Your task to perform on an android device: toggle show notifications on the lock screen Image 0: 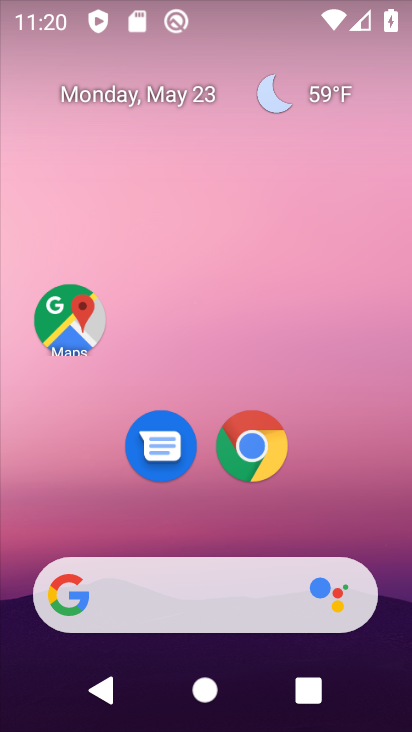
Step 0: drag from (204, 551) to (246, 216)
Your task to perform on an android device: toggle show notifications on the lock screen Image 1: 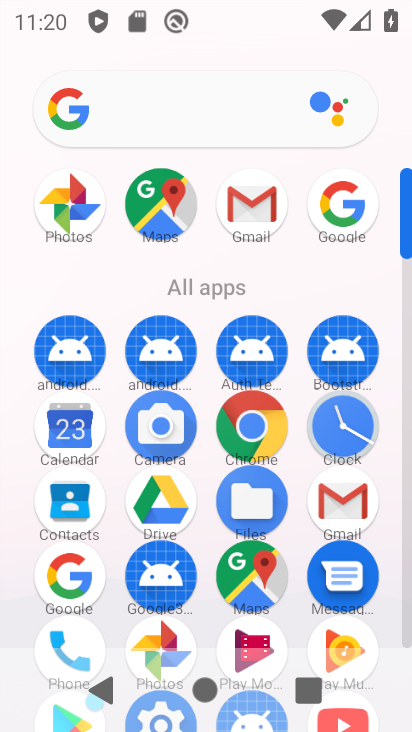
Step 1: drag from (118, 497) to (116, 157)
Your task to perform on an android device: toggle show notifications on the lock screen Image 2: 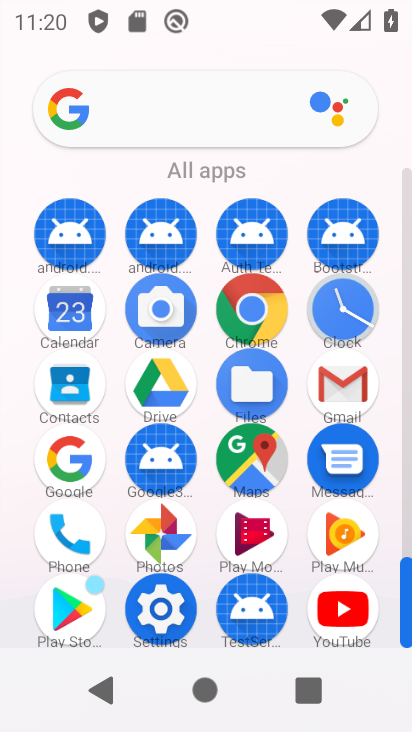
Step 2: click (169, 609)
Your task to perform on an android device: toggle show notifications on the lock screen Image 3: 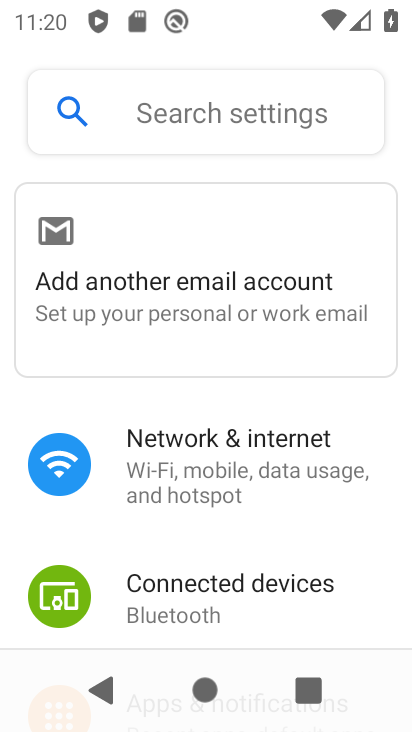
Step 3: drag from (292, 630) to (189, 234)
Your task to perform on an android device: toggle show notifications on the lock screen Image 4: 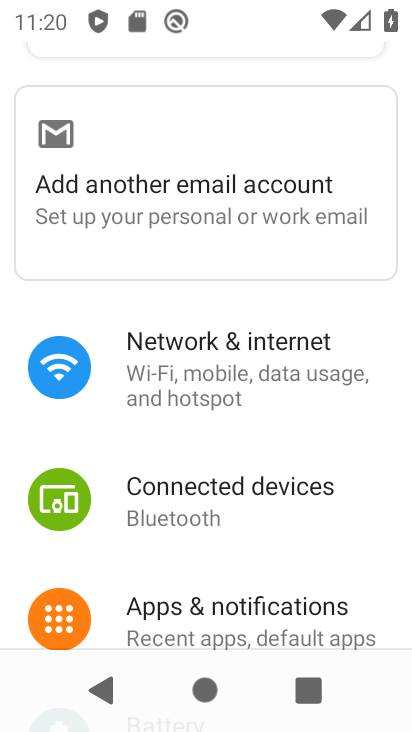
Step 4: drag from (236, 612) to (243, 257)
Your task to perform on an android device: toggle show notifications on the lock screen Image 5: 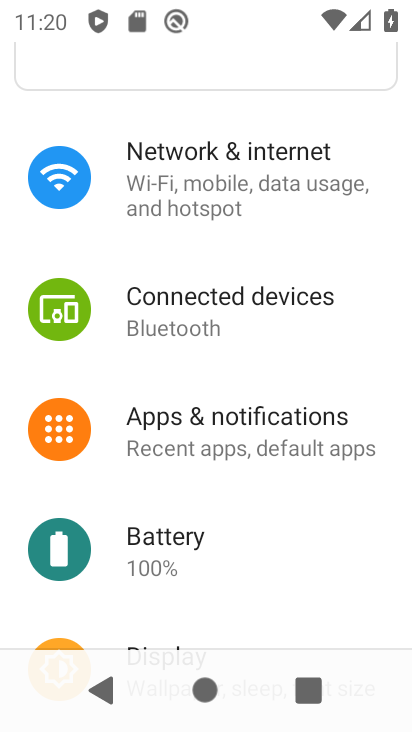
Step 5: drag from (145, 580) to (217, 127)
Your task to perform on an android device: toggle show notifications on the lock screen Image 6: 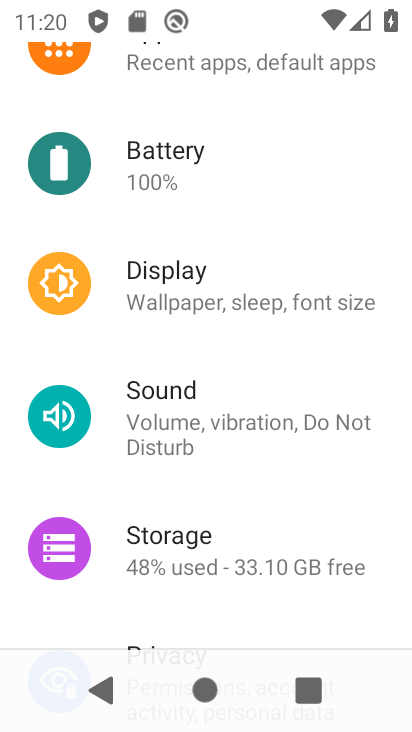
Step 6: drag from (156, 624) to (171, 344)
Your task to perform on an android device: toggle show notifications on the lock screen Image 7: 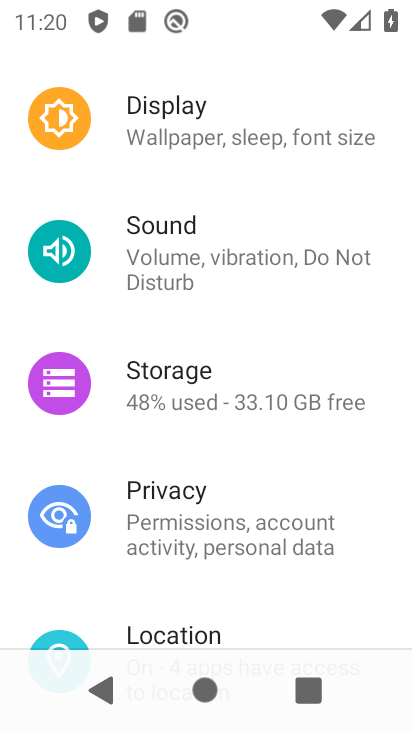
Step 7: click (187, 537)
Your task to perform on an android device: toggle show notifications on the lock screen Image 8: 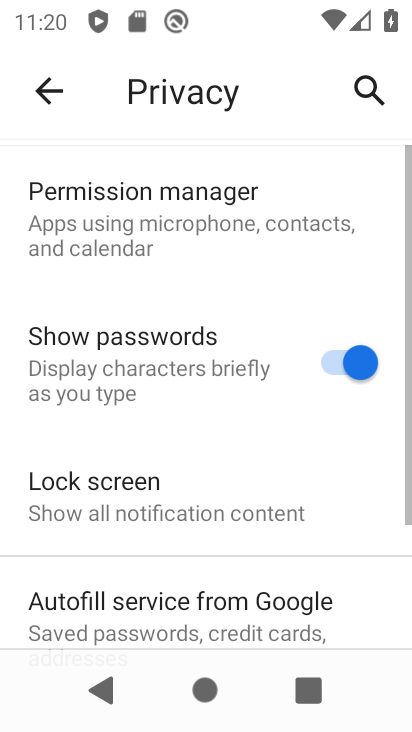
Step 8: click (159, 466)
Your task to perform on an android device: toggle show notifications on the lock screen Image 9: 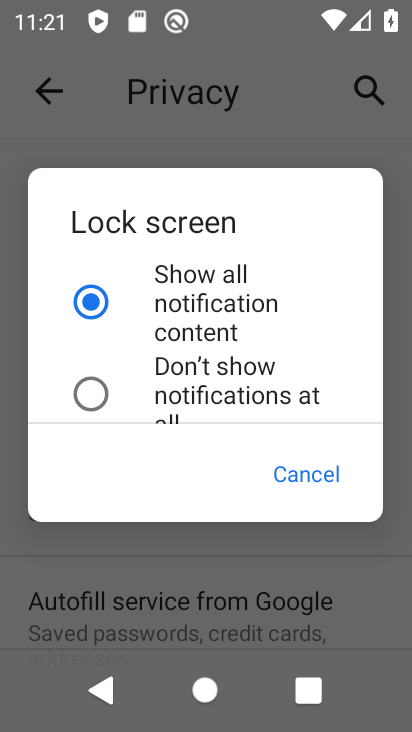
Step 9: click (171, 386)
Your task to perform on an android device: toggle show notifications on the lock screen Image 10: 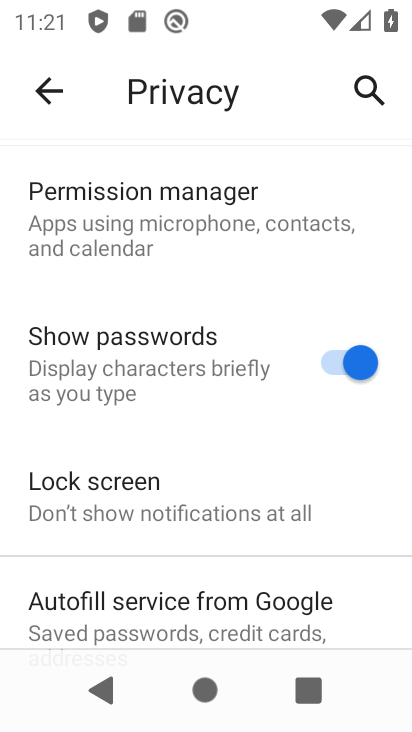
Step 10: task complete